Your task to perform on an android device: Open accessibility settings Image 0: 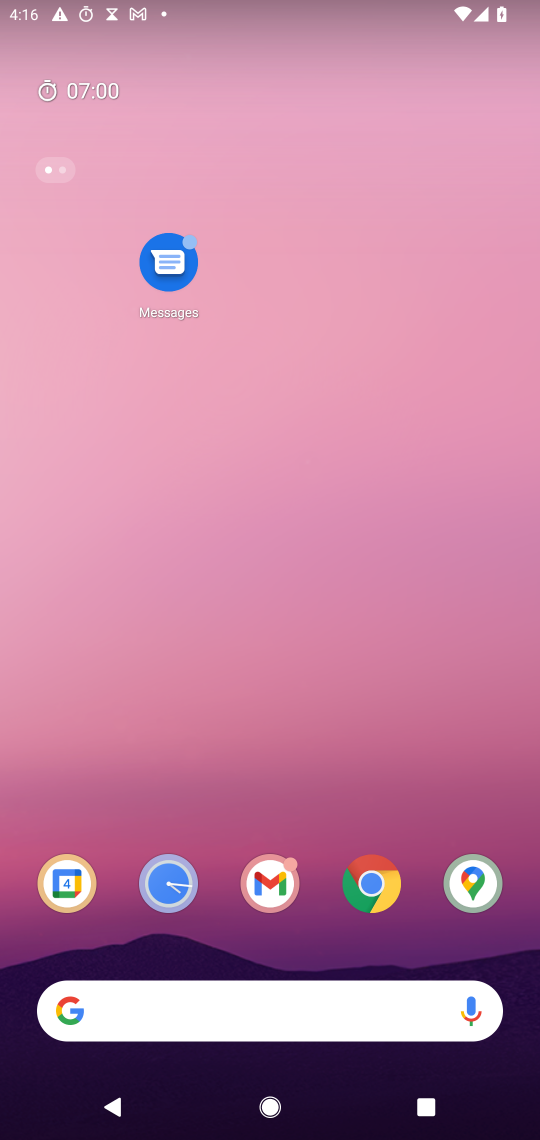
Step 0: drag from (289, 966) to (280, 195)
Your task to perform on an android device: Open accessibility settings Image 1: 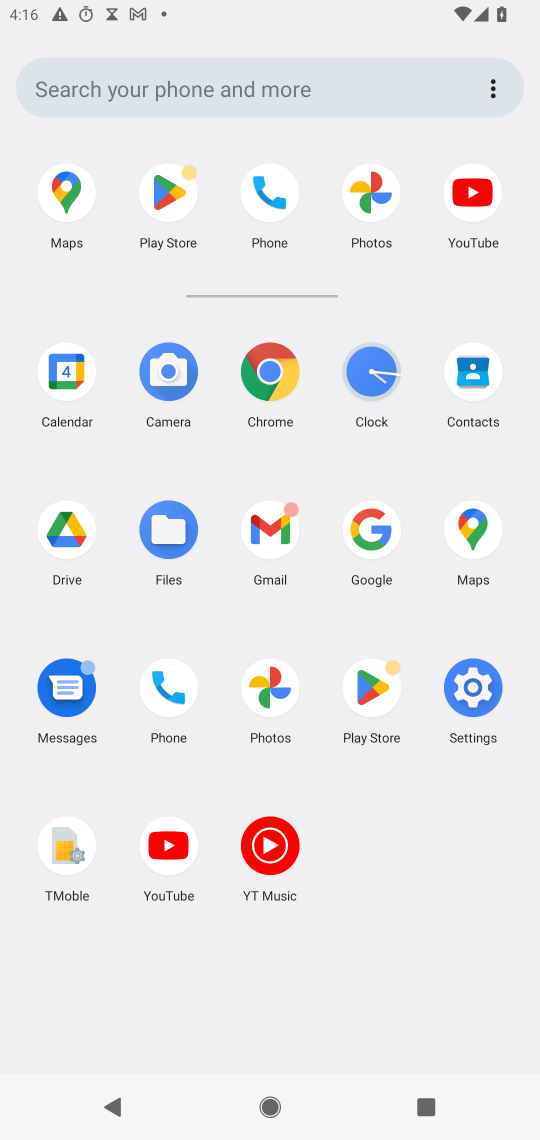
Step 1: click (475, 694)
Your task to perform on an android device: Open accessibility settings Image 2: 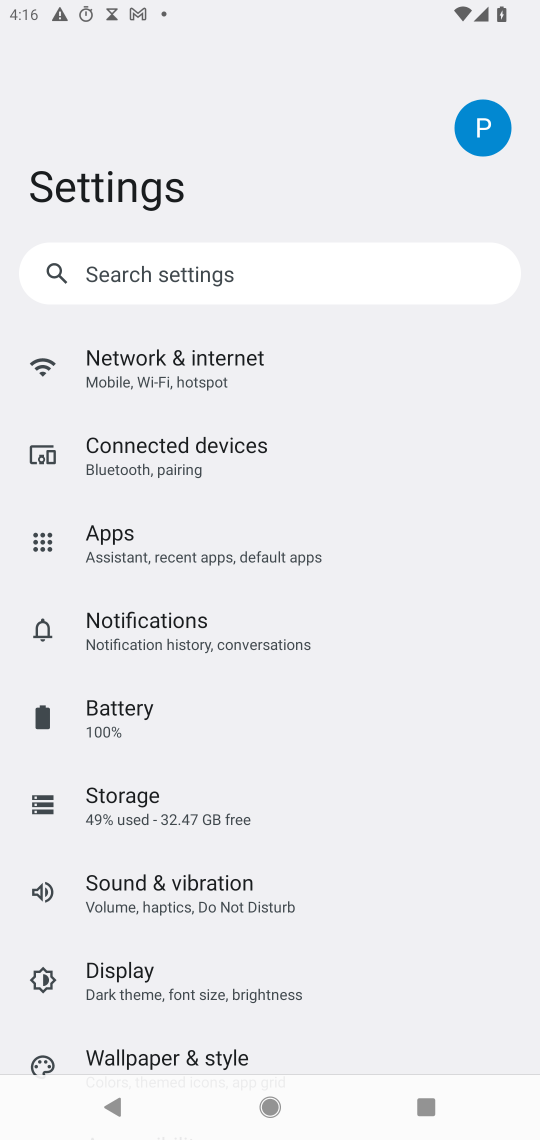
Step 2: drag from (196, 976) to (174, 618)
Your task to perform on an android device: Open accessibility settings Image 3: 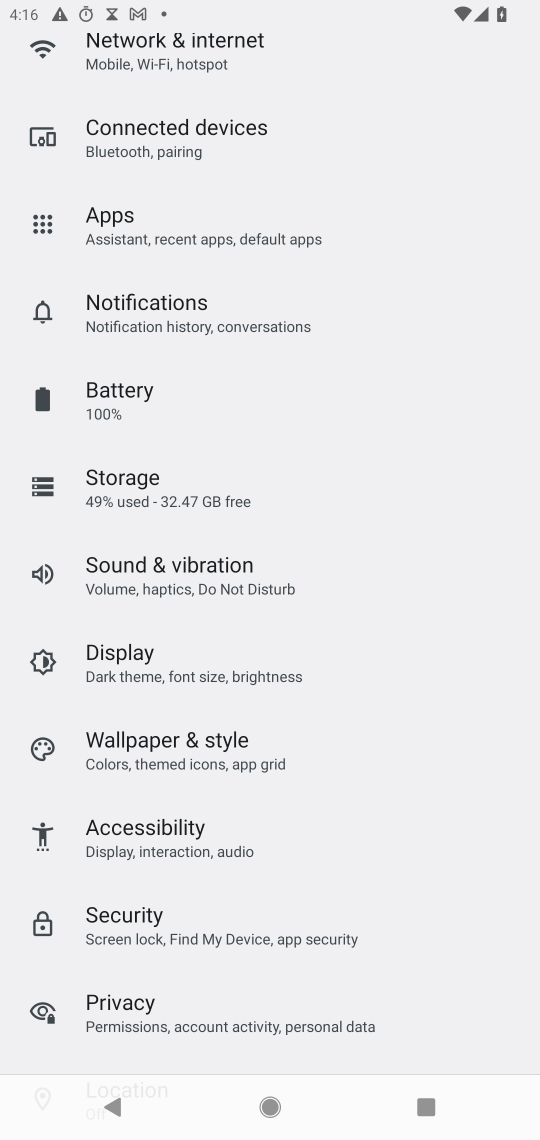
Step 3: click (144, 838)
Your task to perform on an android device: Open accessibility settings Image 4: 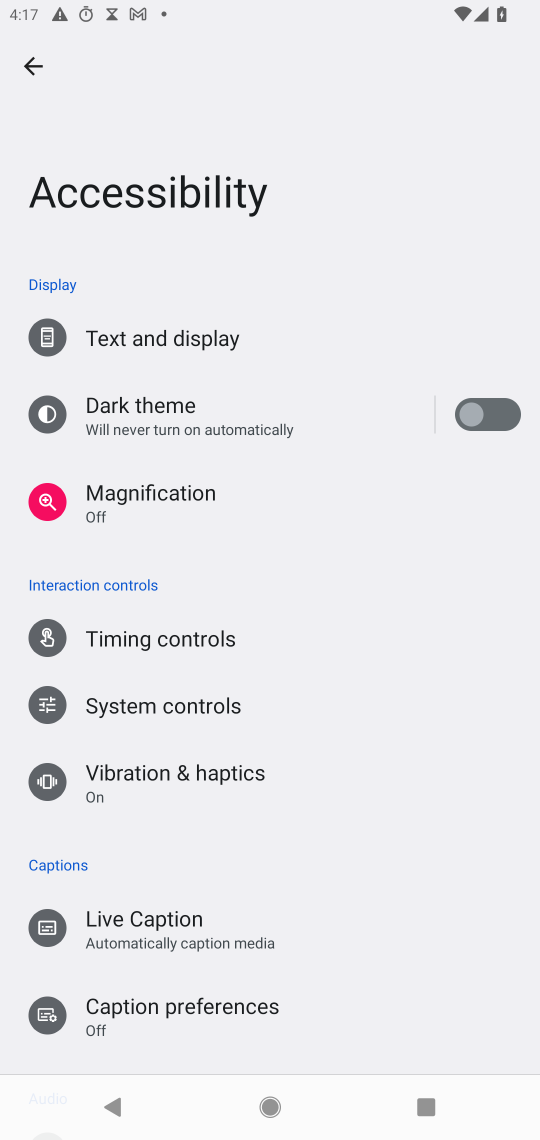
Step 4: task complete